Your task to perform on an android device: Open settings on Google Maps Image 0: 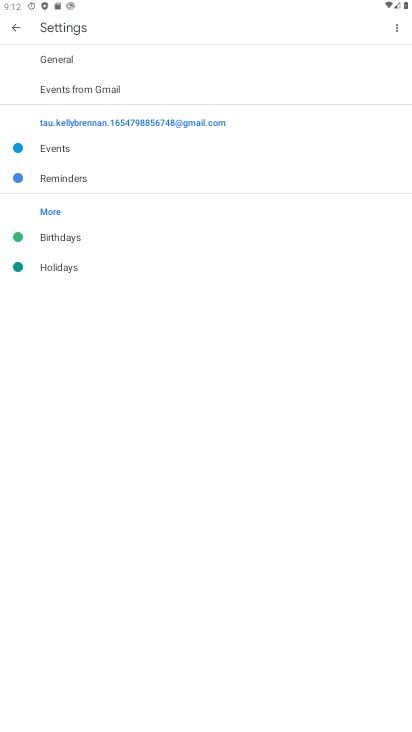
Step 0: click (17, 23)
Your task to perform on an android device: Open settings on Google Maps Image 1: 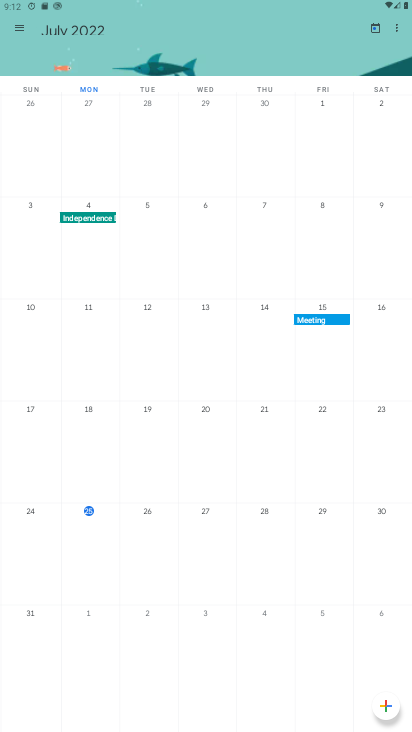
Step 1: press home button
Your task to perform on an android device: Open settings on Google Maps Image 2: 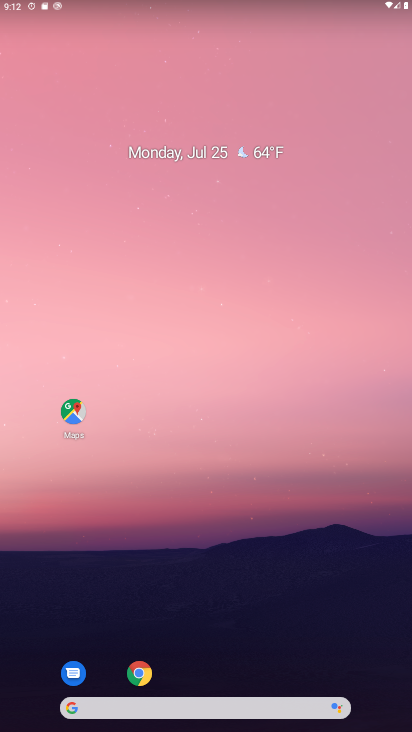
Step 2: click (73, 412)
Your task to perform on an android device: Open settings on Google Maps Image 3: 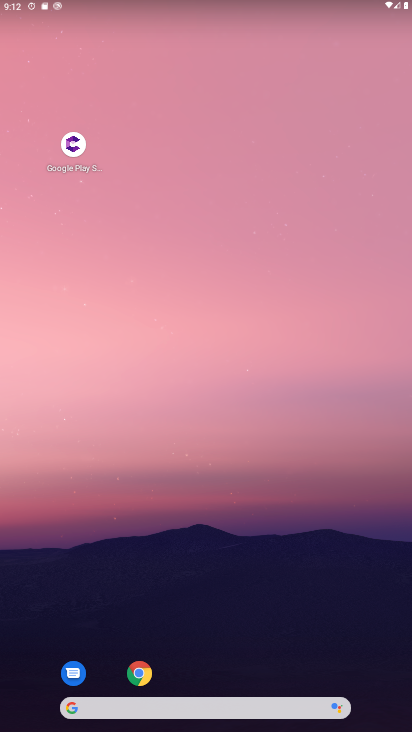
Step 3: drag from (20, 373) to (403, 425)
Your task to perform on an android device: Open settings on Google Maps Image 4: 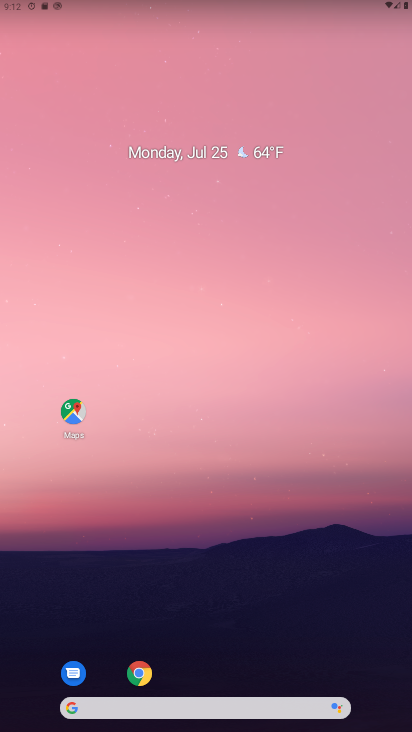
Step 4: click (76, 405)
Your task to perform on an android device: Open settings on Google Maps Image 5: 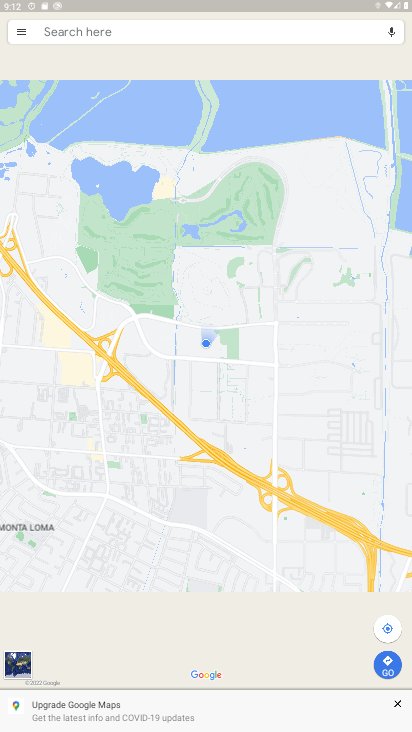
Step 5: click (22, 27)
Your task to perform on an android device: Open settings on Google Maps Image 6: 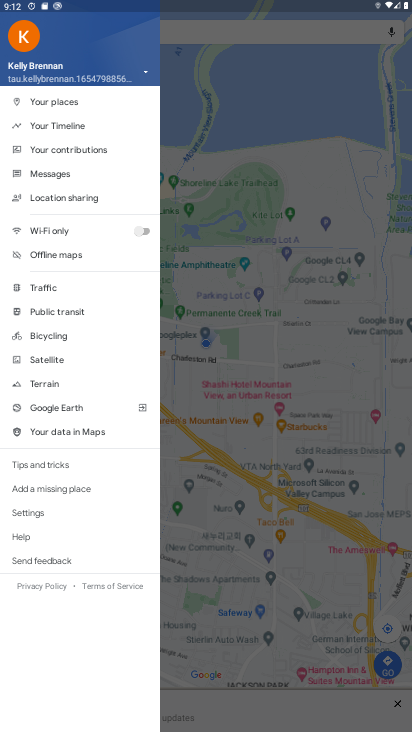
Step 6: click (49, 509)
Your task to perform on an android device: Open settings on Google Maps Image 7: 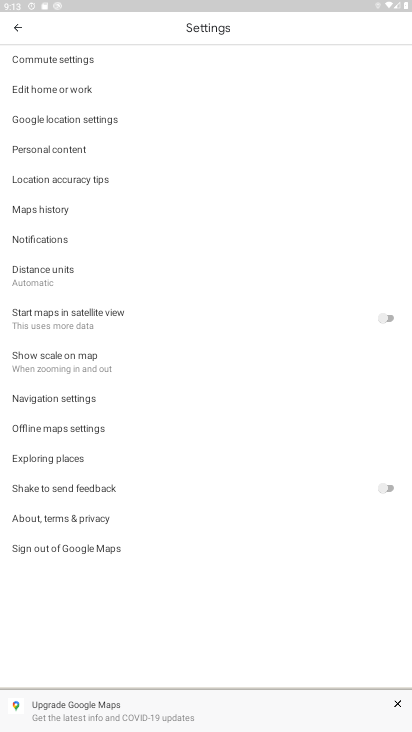
Step 7: task complete